Your task to perform on an android device: Go to accessibility settings Image 0: 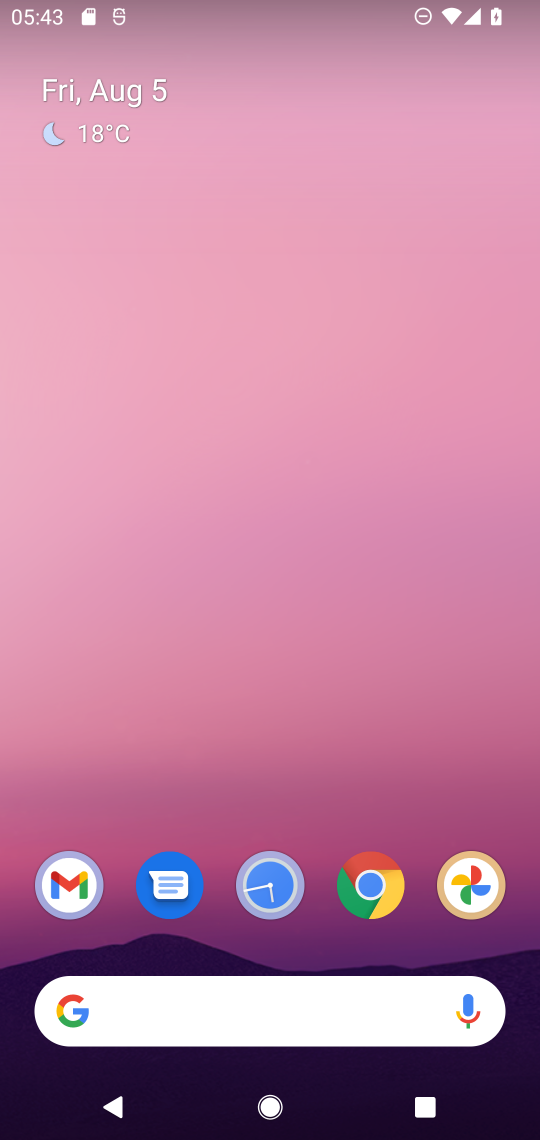
Step 0: drag from (316, 968) to (342, 220)
Your task to perform on an android device: Go to accessibility settings Image 1: 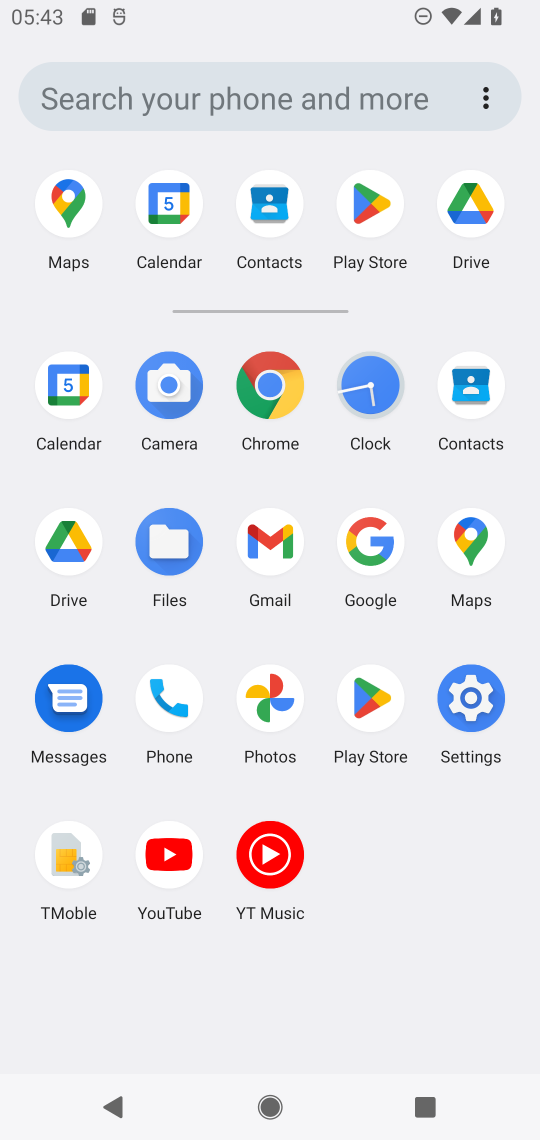
Step 1: click (487, 713)
Your task to perform on an android device: Go to accessibility settings Image 2: 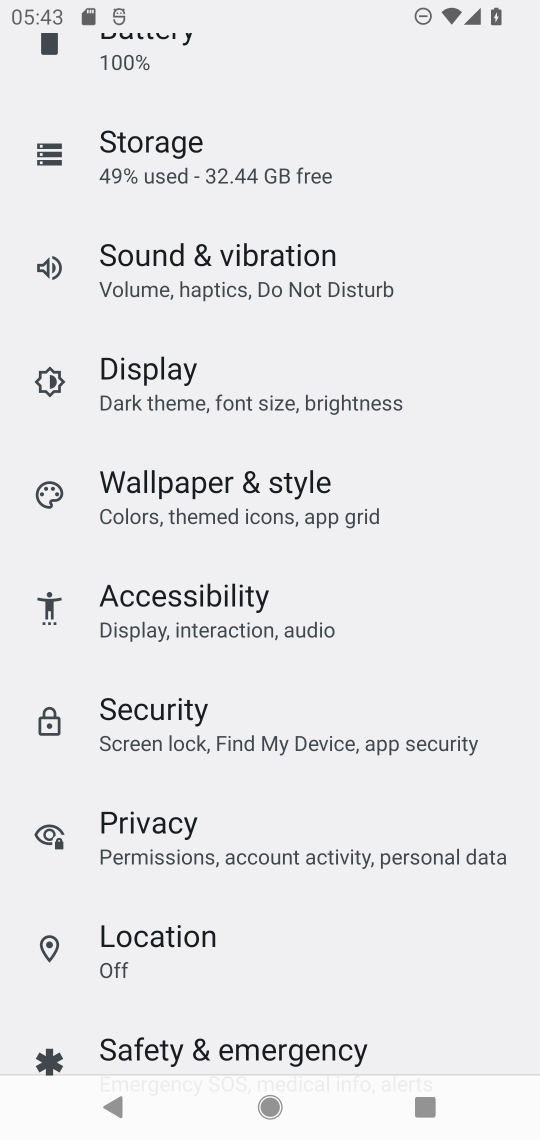
Step 2: click (169, 624)
Your task to perform on an android device: Go to accessibility settings Image 3: 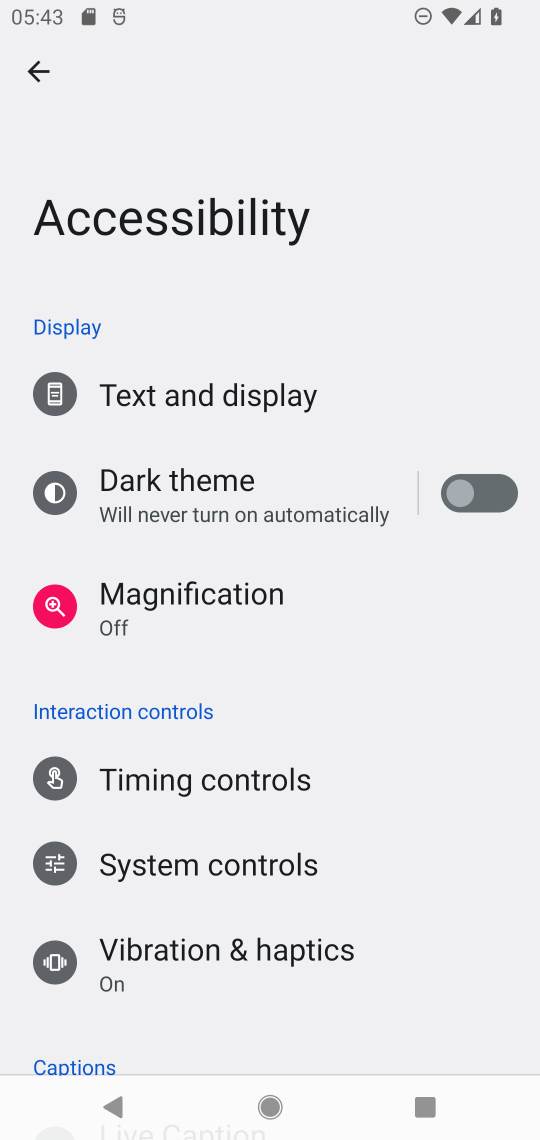
Step 3: task complete